Your task to perform on an android device: turn on data saver in the chrome app Image 0: 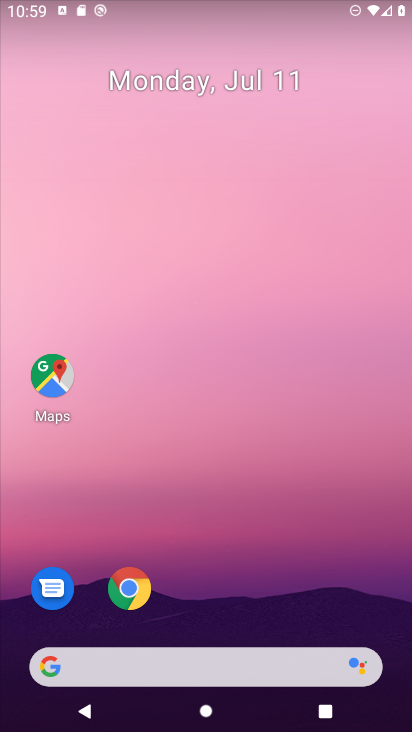
Step 0: drag from (400, 678) to (242, 2)
Your task to perform on an android device: turn on data saver in the chrome app Image 1: 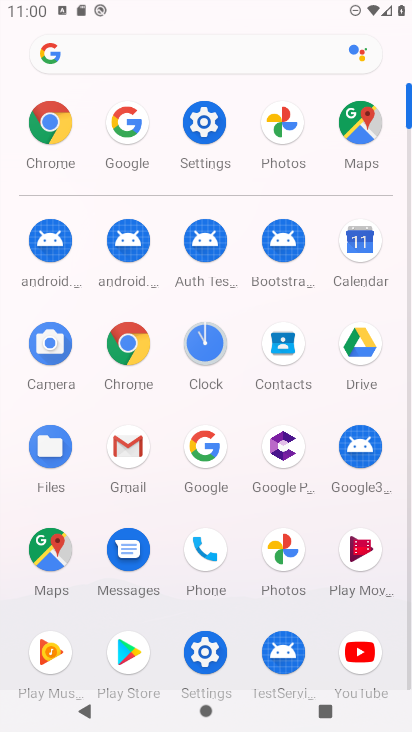
Step 1: click (127, 359)
Your task to perform on an android device: turn on data saver in the chrome app Image 2: 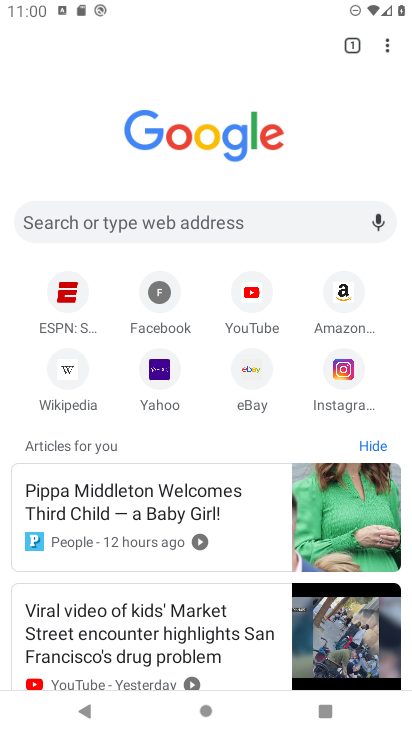
Step 2: click (382, 51)
Your task to perform on an android device: turn on data saver in the chrome app Image 3: 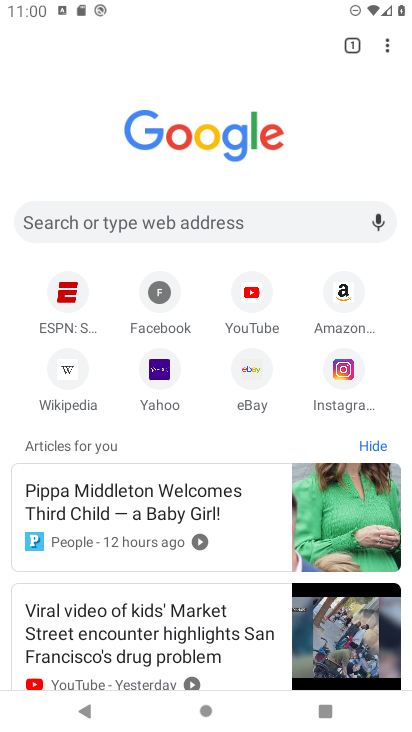
Step 3: click (393, 37)
Your task to perform on an android device: turn on data saver in the chrome app Image 4: 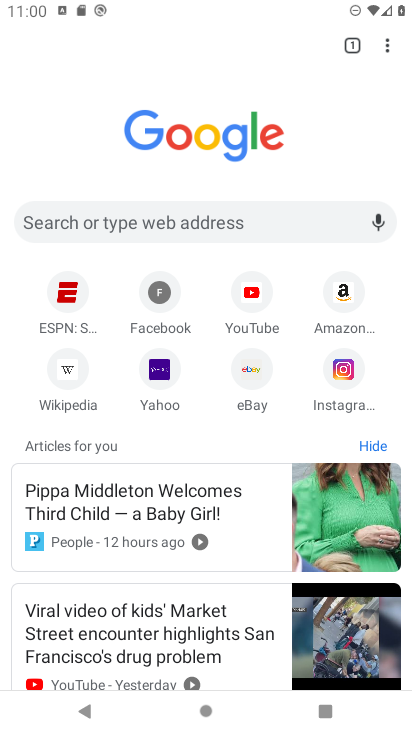
Step 4: click (384, 38)
Your task to perform on an android device: turn on data saver in the chrome app Image 5: 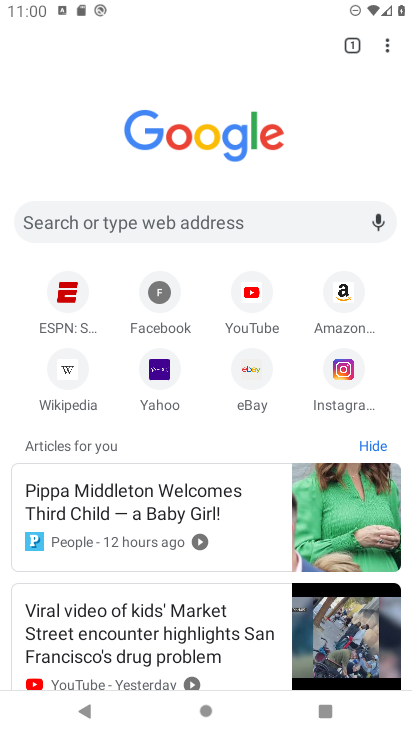
Step 5: click (384, 38)
Your task to perform on an android device: turn on data saver in the chrome app Image 6: 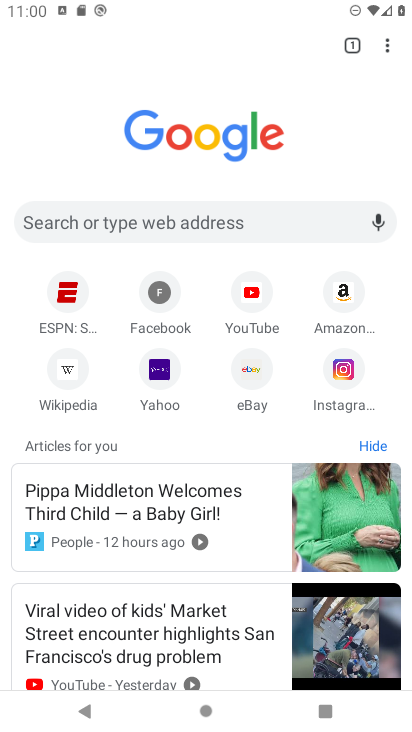
Step 6: click (383, 39)
Your task to perform on an android device: turn on data saver in the chrome app Image 7: 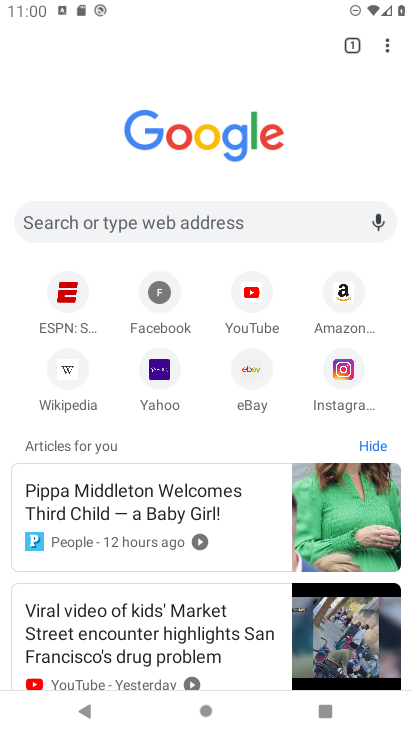
Step 7: click (383, 39)
Your task to perform on an android device: turn on data saver in the chrome app Image 8: 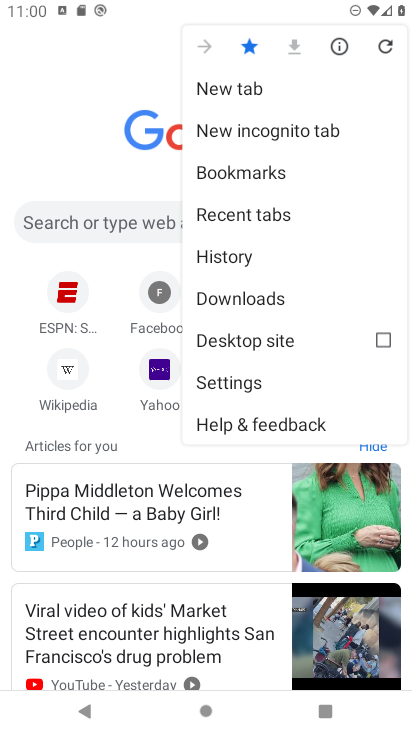
Step 8: click (248, 386)
Your task to perform on an android device: turn on data saver in the chrome app Image 9: 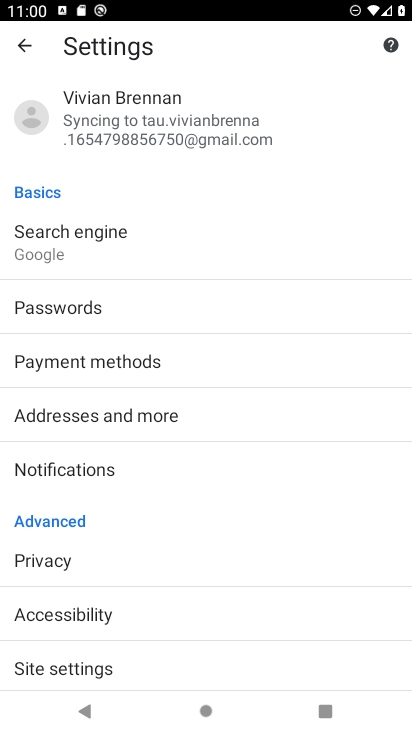
Step 9: drag from (232, 651) to (160, 21)
Your task to perform on an android device: turn on data saver in the chrome app Image 10: 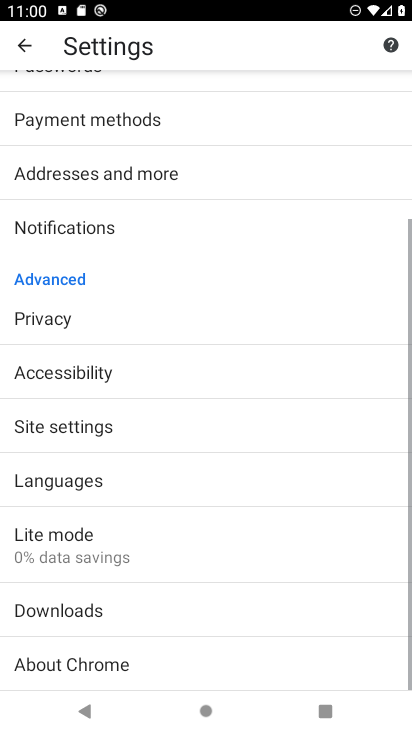
Step 10: click (48, 557)
Your task to perform on an android device: turn on data saver in the chrome app Image 11: 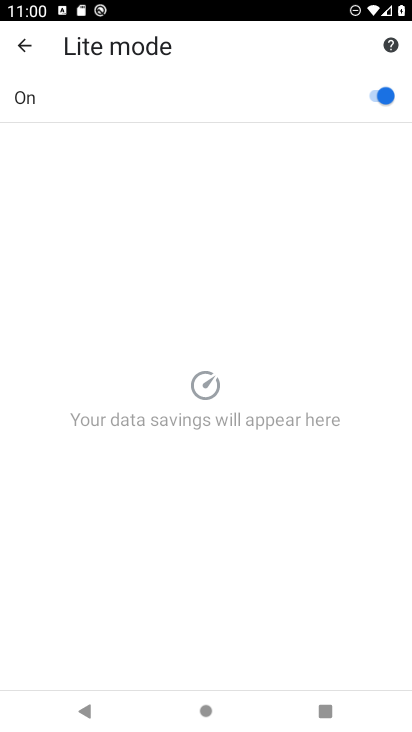
Step 11: task complete